Your task to perform on an android device: turn off notifications in google photos Image 0: 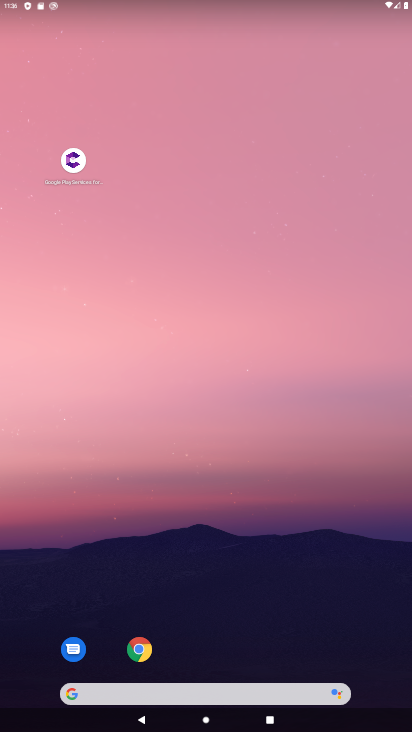
Step 0: drag from (221, 672) to (281, 325)
Your task to perform on an android device: turn off notifications in google photos Image 1: 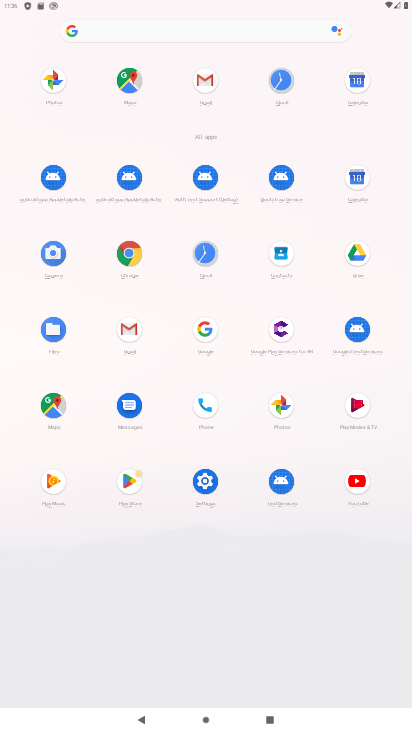
Step 1: click (273, 410)
Your task to perform on an android device: turn off notifications in google photos Image 2: 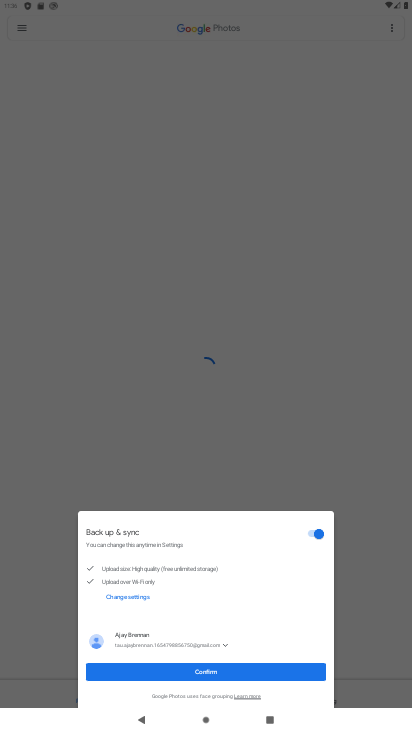
Step 2: click (209, 670)
Your task to perform on an android device: turn off notifications in google photos Image 3: 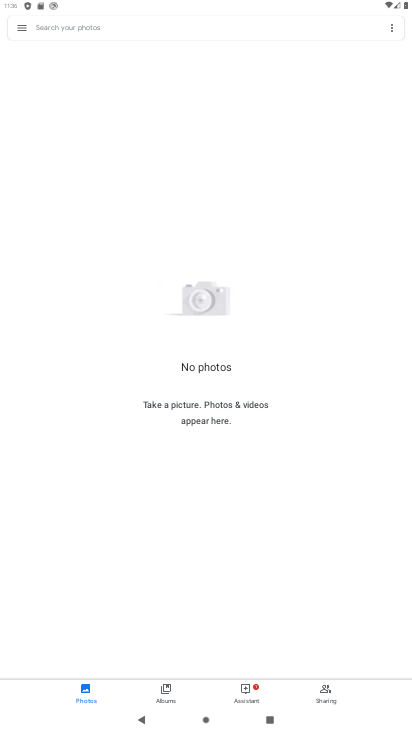
Step 3: click (30, 37)
Your task to perform on an android device: turn off notifications in google photos Image 4: 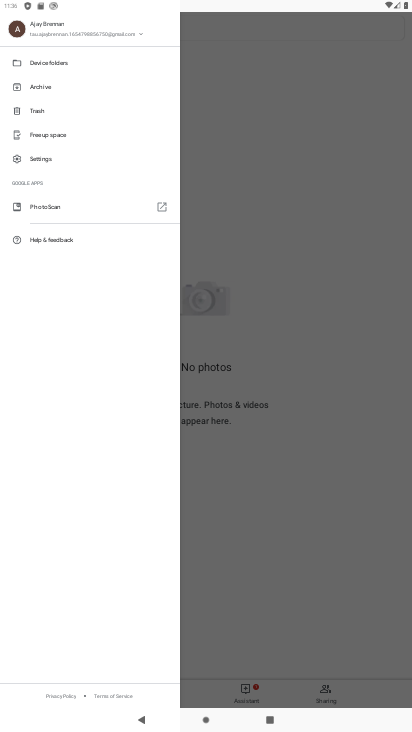
Step 4: click (73, 156)
Your task to perform on an android device: turn off notifications in google photos Image 5: 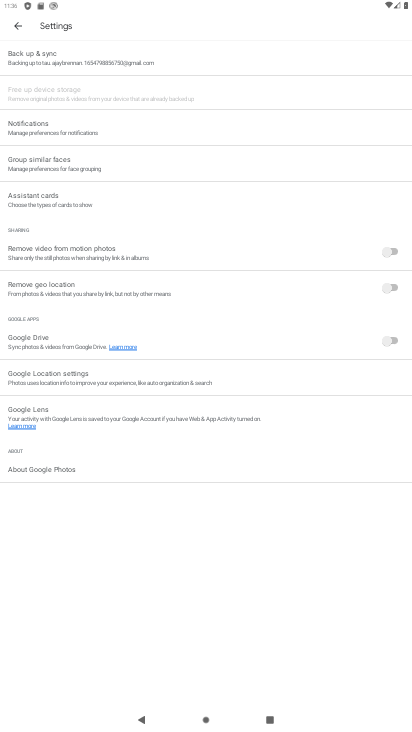
Step 5: click (105, 130)
Your task to perform on an android device: turn off notifications in google photos Image 6: 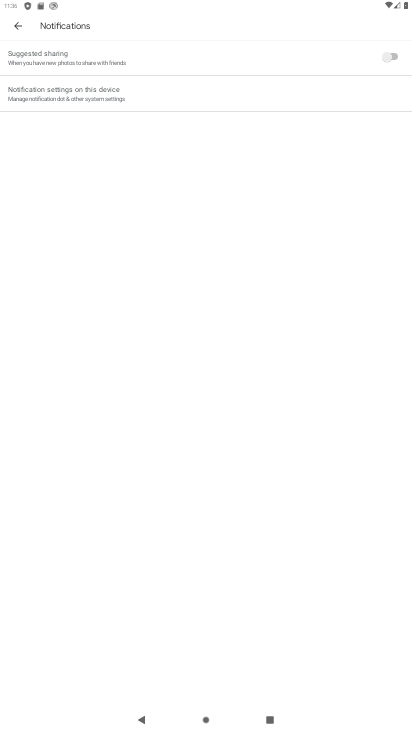
Step 6: click (176, 85)
Your task to perform on an android device: turn off notifications in google photos Image 7: 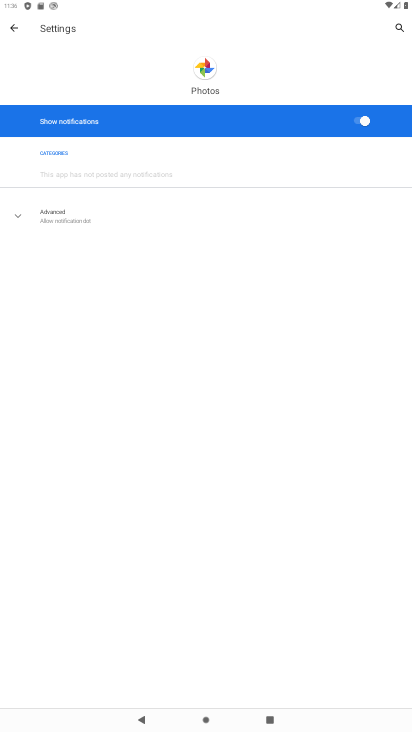
Step 7: click (360, 119)
Your task to perform on an android device: turn off notifications in google photos Image 8: 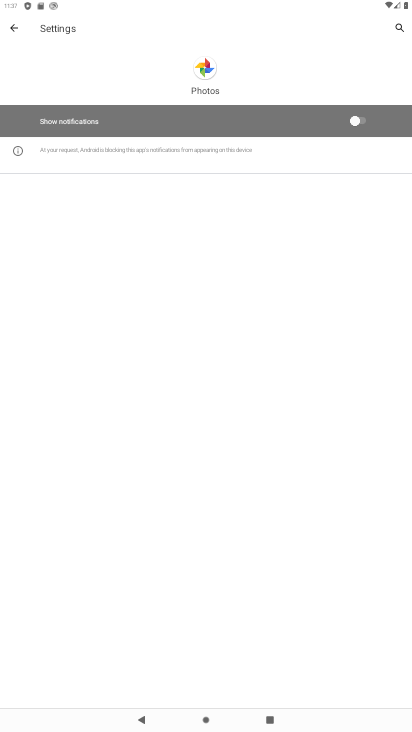
Step 8: task complete